Your task to perform on an android device: open chrome and create a bookmark for the current page Image 0: 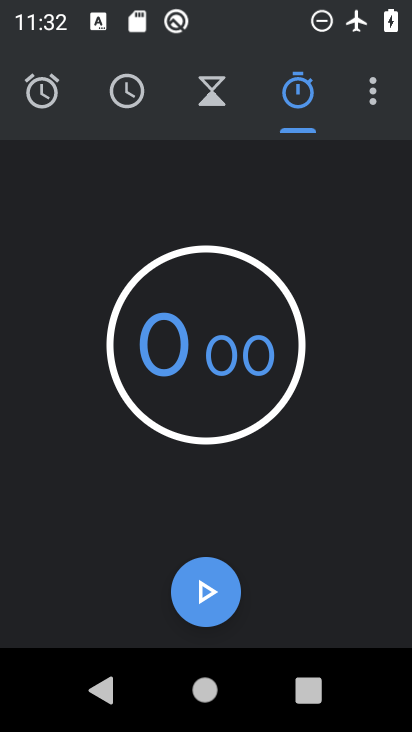
Step 0: press home button
Your task to perform on an android device: open chrome and create a bookmark for the current page Image 1: 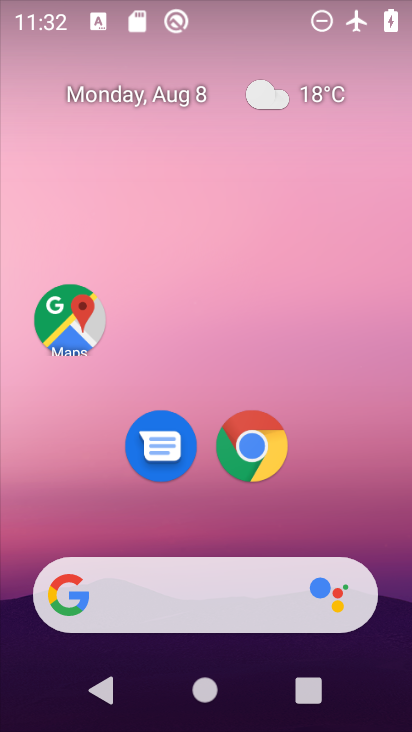
Step 1: click (253, 442)
Your task to perform on an android device: open chrome and create a bookmark for the current page Image 2: 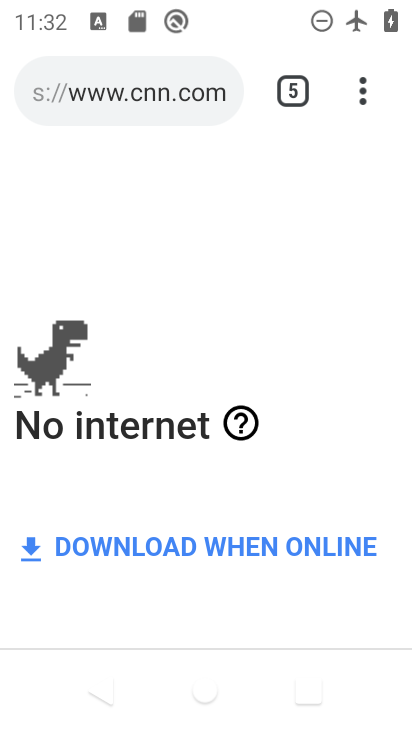
Step 2: click (357, 104)
Your task to perform on an android device: open chrome and create a bookmark for the current page Image 3: 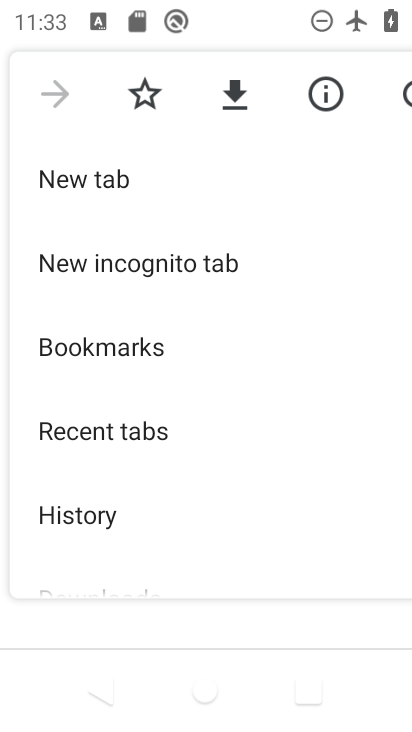
Step 3: click (122, 180)
Your task to perform on an android device: open chrome and create a bookmark for the current page Image 4: 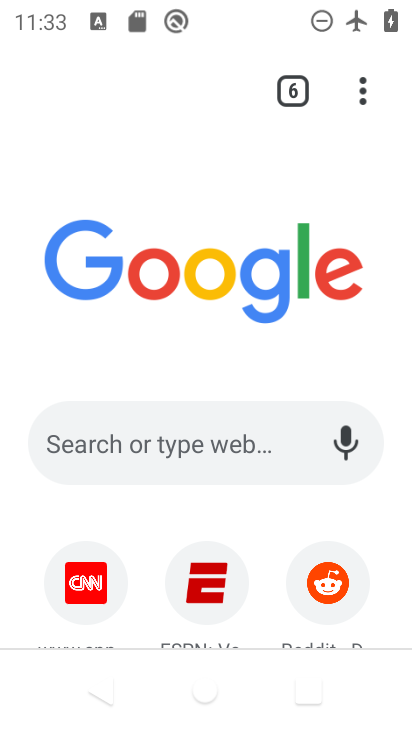
Step 4: click (356, 99)
Your task to perform on an android device: open chrome and create a bookmark for the current page Image 5: 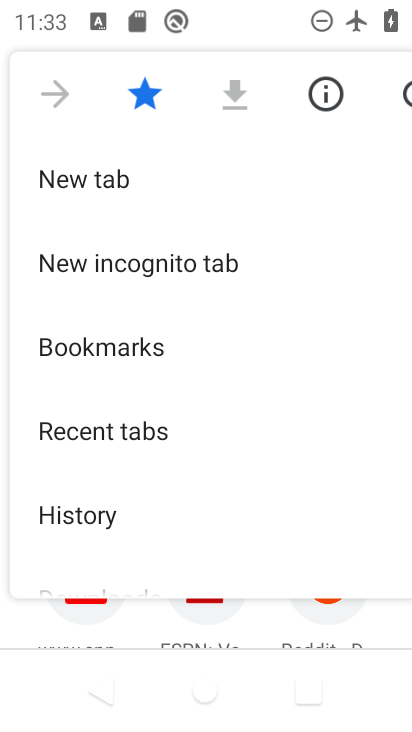
Step 5: task complete